Your task to perform on an android device: turn on showing notifications on the lock screen Image 0: 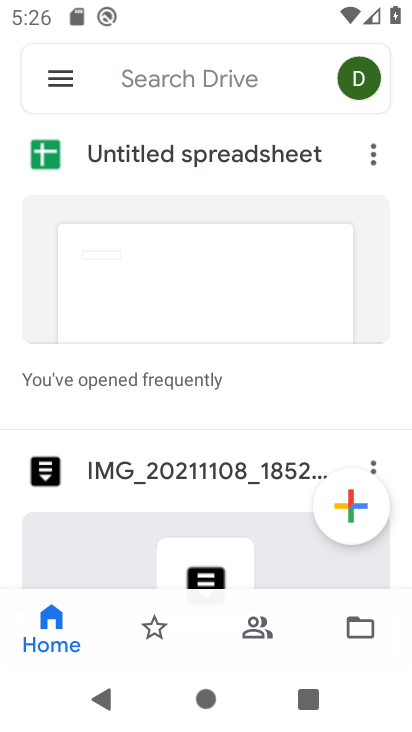
Step 0: press home button
Your task to perform on an android device: turn on showing notifications on the lock screen Image 1: 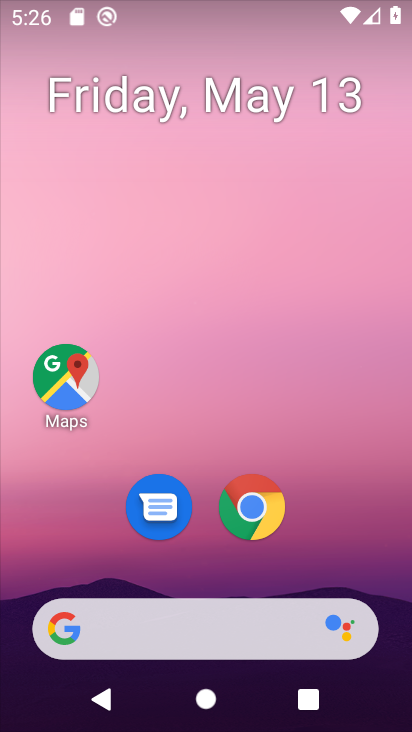
Step 1: drag from (335, 550) to (238, 45)
Your task to perform on an android device: turn on showing notifications on the lock screen Image 2: 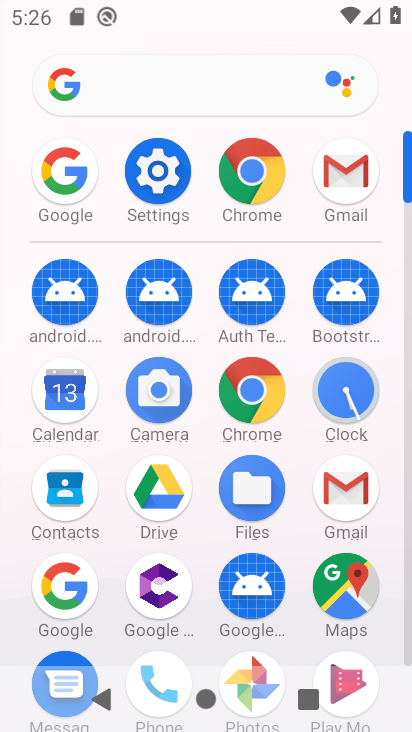
Step 2: click (172, 181)
Your task to perform on an android device: turn on showing notifications on the lock screen Image 3: 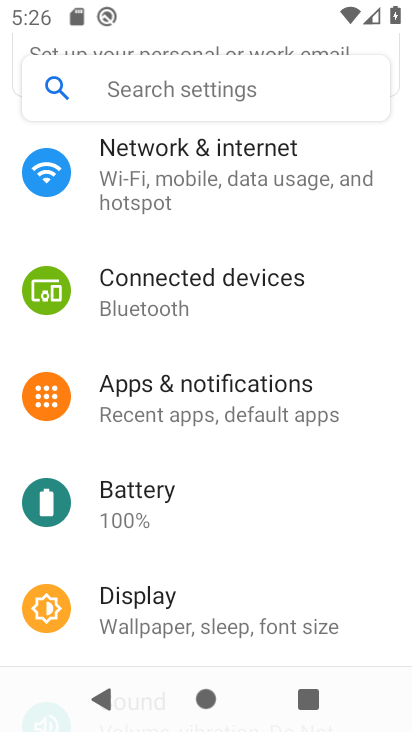
Step 3: click (202, 394)
Your task to perform on an android device: turn on showing notifications on the lock screen Image 4: 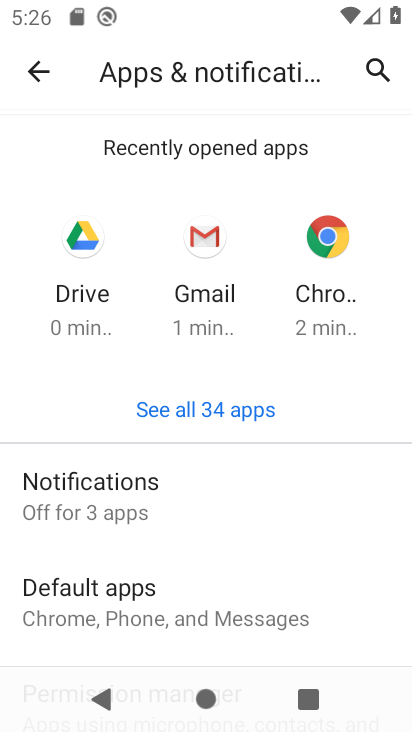
Step 4: drag from (226, 573) to (229, 449)
Your task to perform on an android device: turn on showing notifications on the lock screen Image 5: 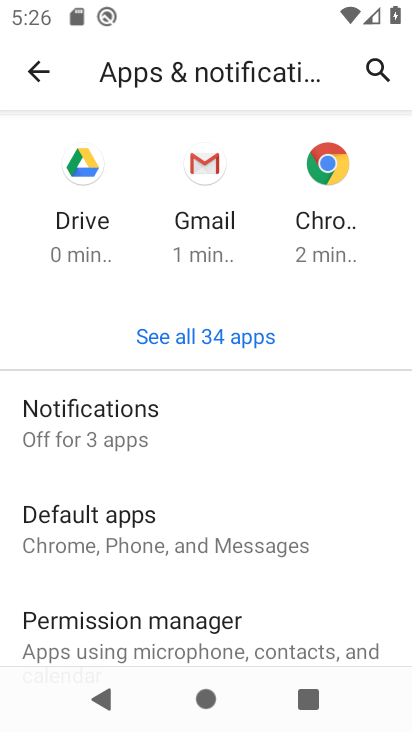
Step 5: click (168, 411)
Your task to perform on an android device: turn on showing notifications on the lock screen Image 6: 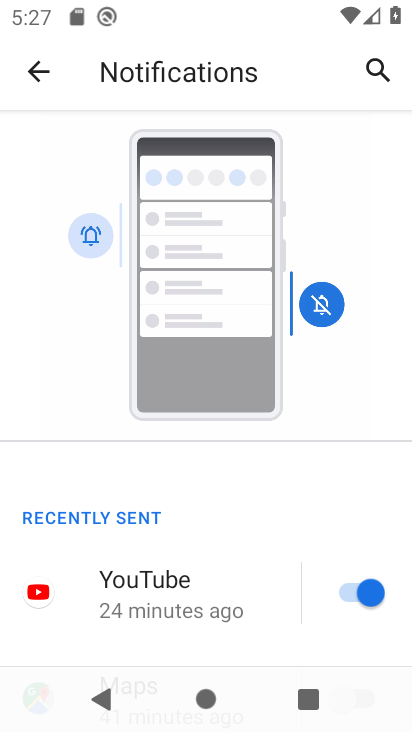
Step 6: drag from (240, 597) to (199, 239)
Your task to perform on an android device: turn on showing notifications on the lock screen Image 7: 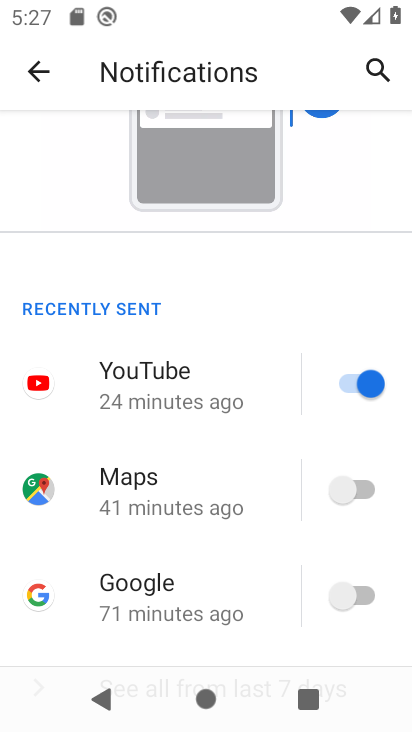
Step 7: drag from (211, 593) to (202, 315)
Your task to perform on an android device: turn on showing notifications on the lock screen Image 8: 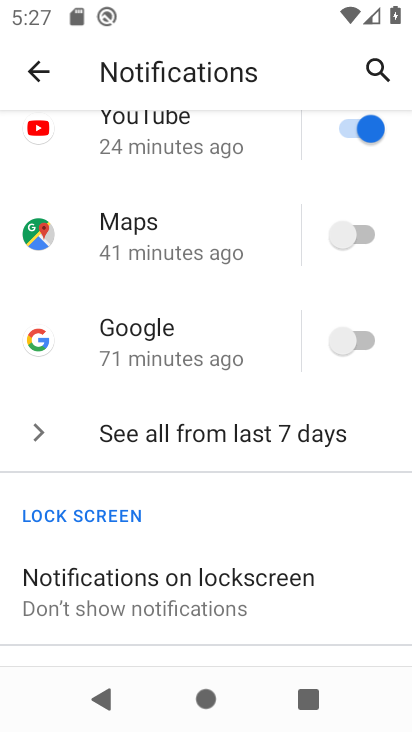
Step 8: click (217, 587)
Your task to perform on an android device: turn on showing notifications on the lock screen Image 9: 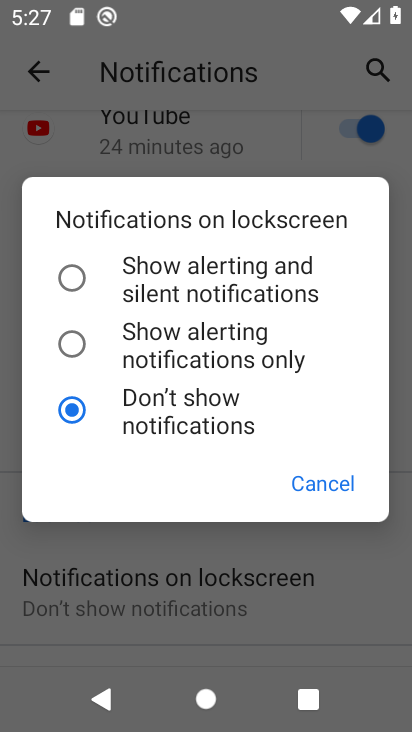
Step 9: click (167, 282)
Your task to perform on an android device: turn on showing notifications on the lock screen Image 10: 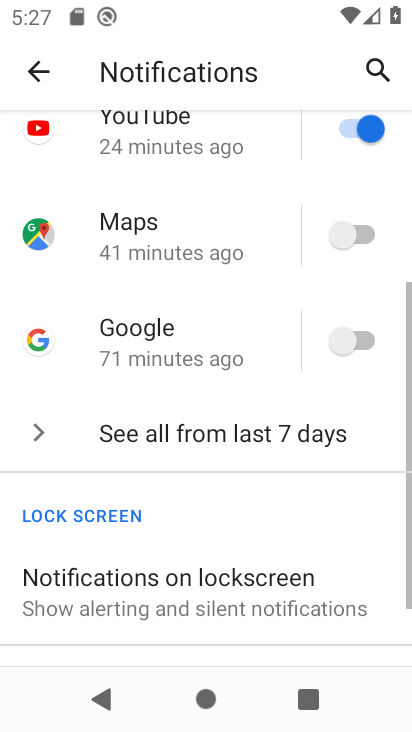
Step 10: task complete